Your task to perform on an android device: Open internet settings Image 0: 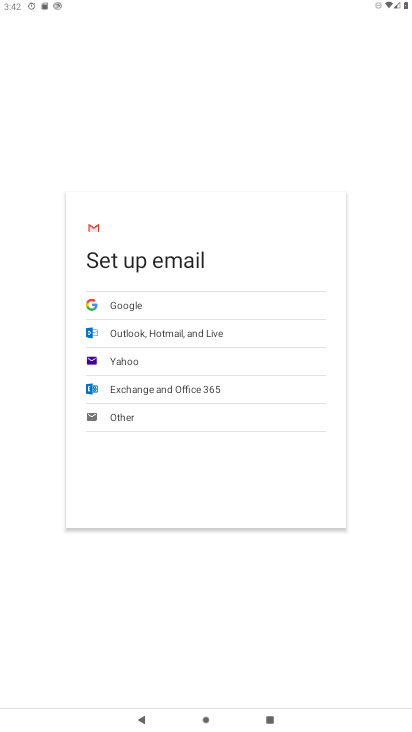
Step 0: press home button
Your task to perform on an android device: Open internet settings Image 1: 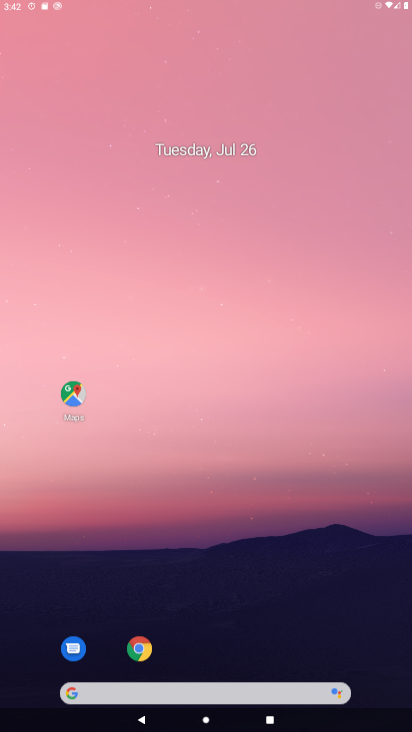
Step 1: drag from (380, 674) to (243, 5)
Your task to perform on an android device: Open internet settings Image 2: 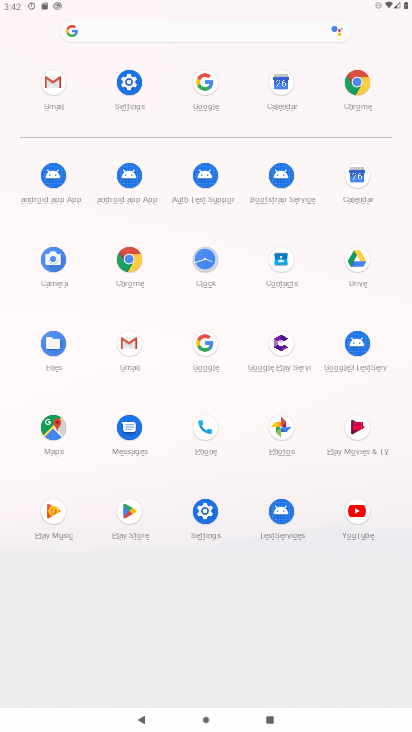
Step 2: click (197, 517)
Your task to perform on an android device: Open internet settings Image 3: 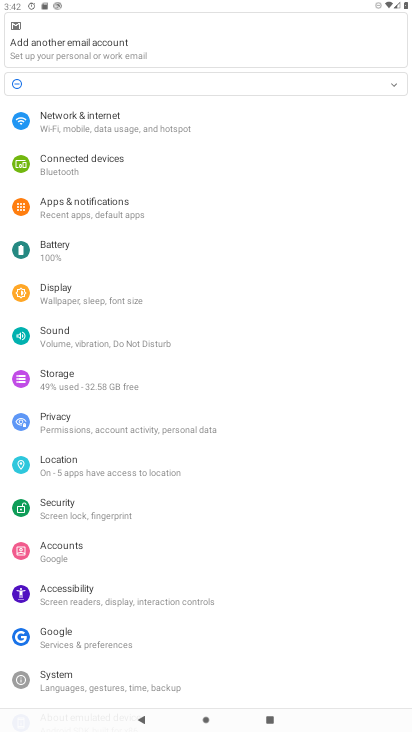
Step 3: click (77, 117)
Your task to perform on an android device: Open internet settings Image 4: 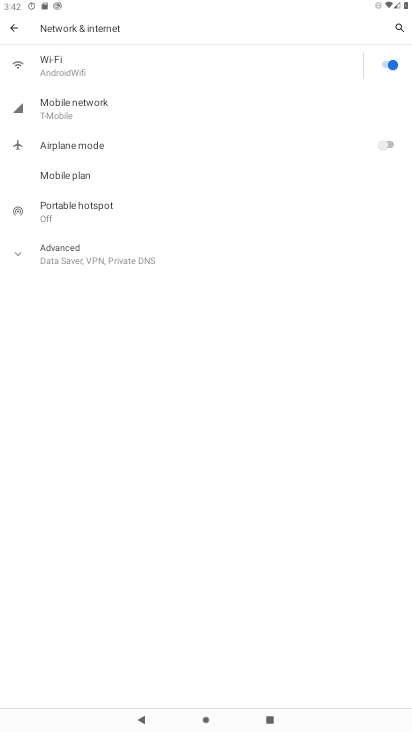
Step 4: task complete